Your task to perform on an android device: turn off location history Image 0: 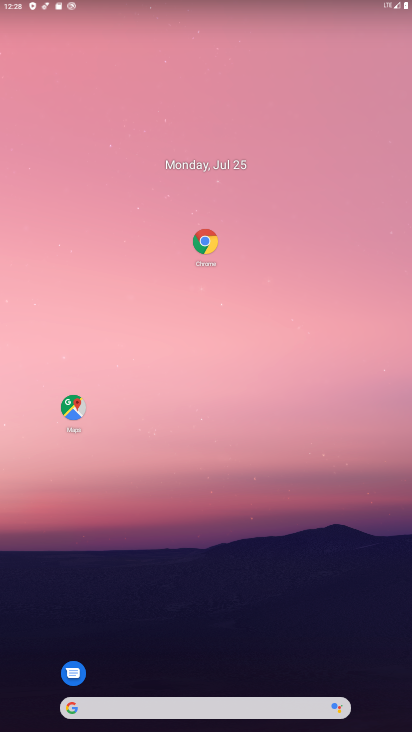
Step 0: drag from (182, 663) to (221, 6)
Your task to perform on an android device: turn off location history Image 1: 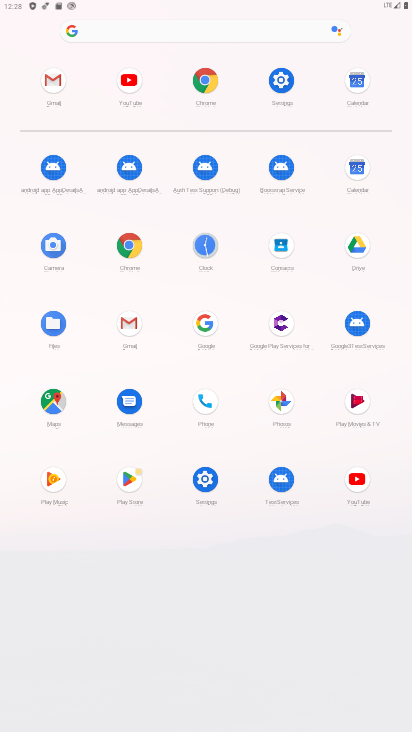
Step 1: click (287, 77)
Your task to perform on an android device: turn off location history Image 2: 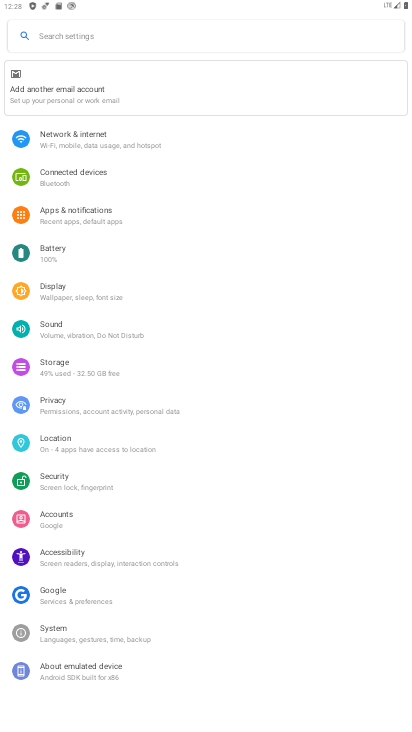
Step 2: click (73, 445)
Your task to perform on an android device: turn off location history Image 3: 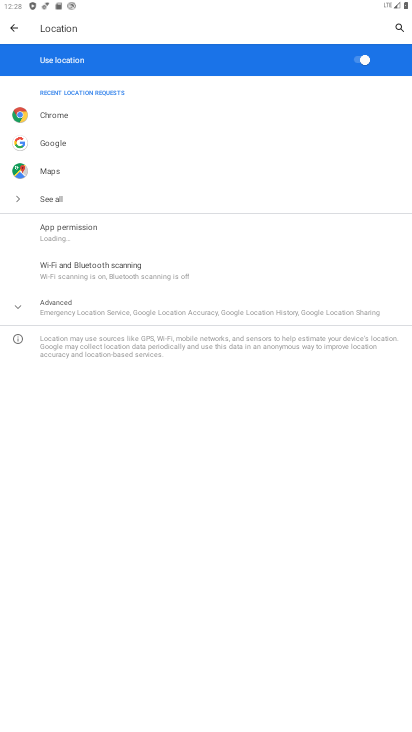
Step 3: click (128, 314)
Your task to perform on an android device: turn off location history Image 4: 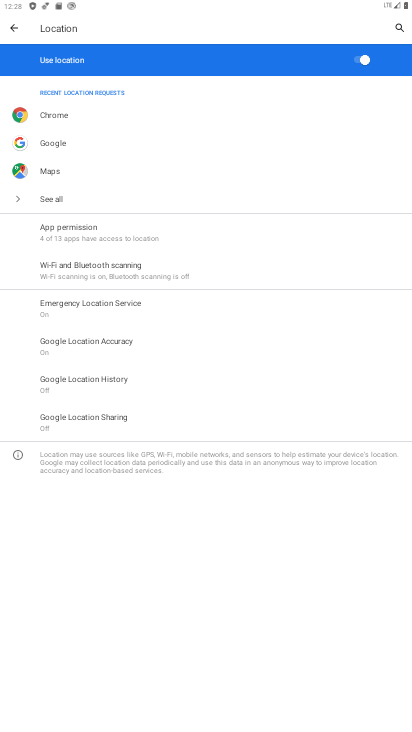
Step 4: click (123, 393)
Your task to perform on an android device: turn off location history Image 5: 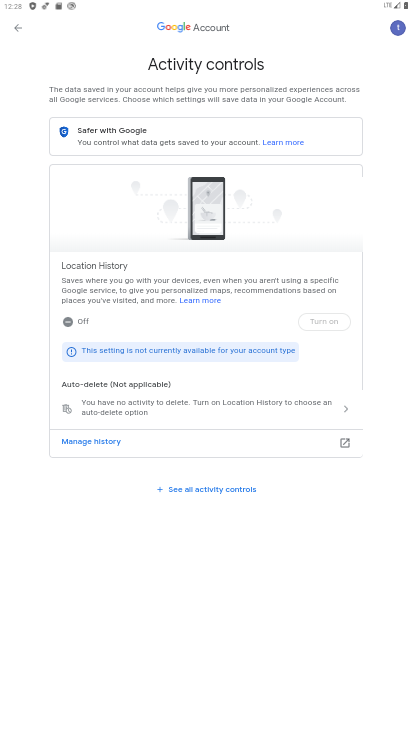
Step 5: task complete